Your task to perform on an android device: turn off location history Image 0: 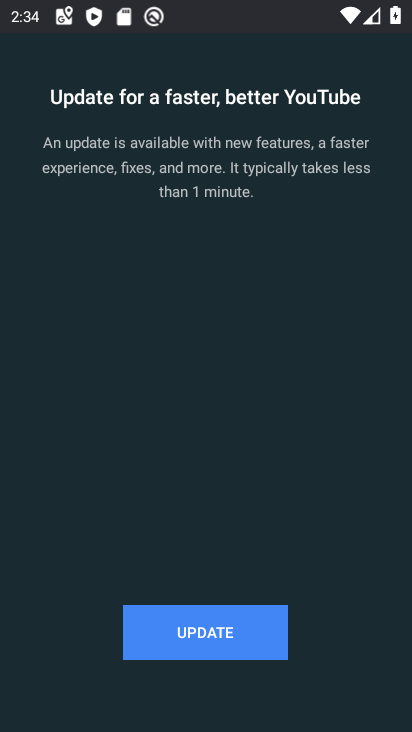
Step 0: press back button
Your task to perform on an android device: turn off location history Image 1: 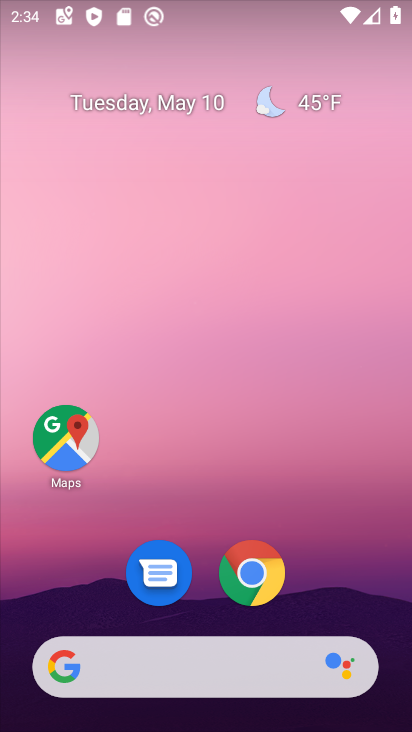
Step 1: drag from (197, 605) to (206, 349)
Your task to perform on an android device: turn off location history Image 2: 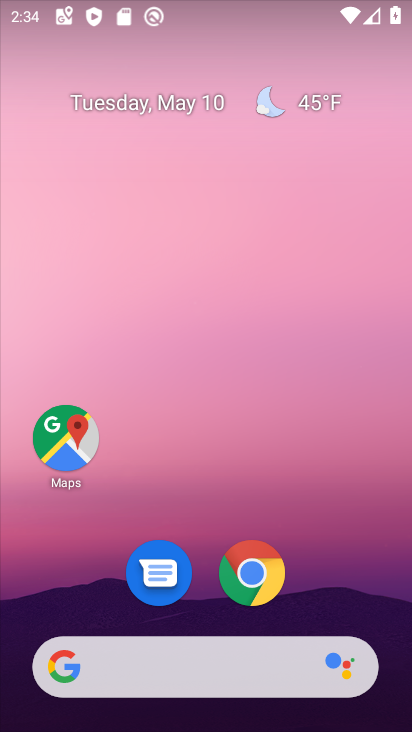
Step 2: drag from (198, 607) to (164, 138)
Your task to perform on an android device: turn off location history Image 3: 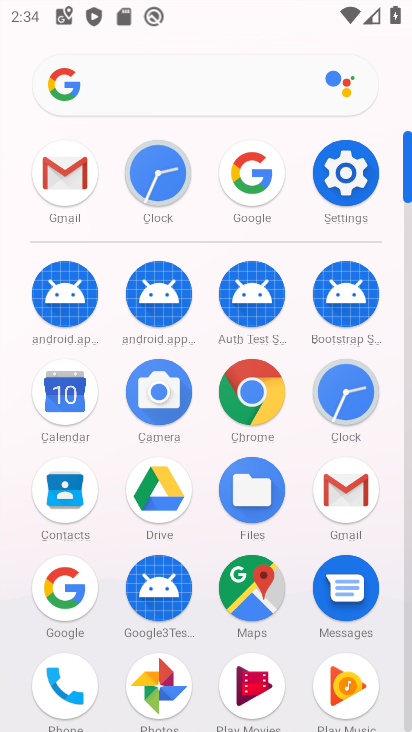
Step 3: click (344, 178)
Your task to perform on an android device: turn off location history Image 4: 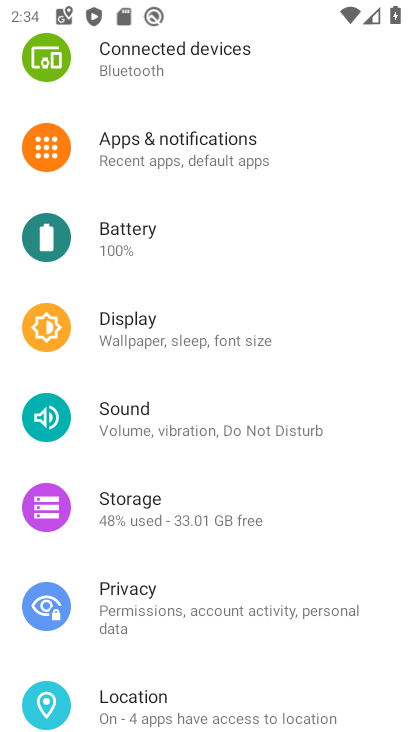
Step 4: click (206, 699)
Your task to perform on an android device: turn off location history Image 5: 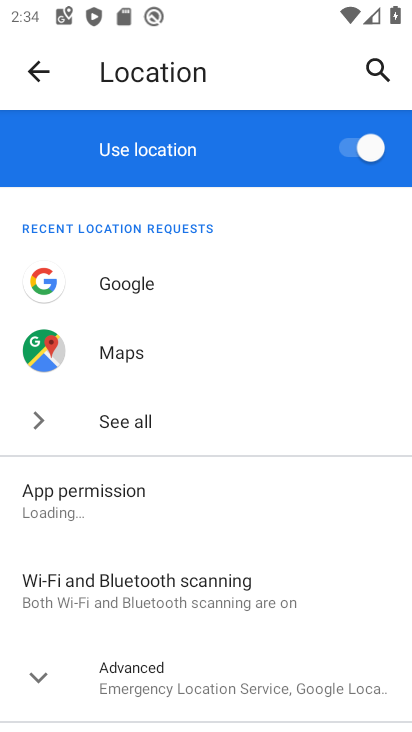
Step 5: click (161, 668)
Your task to perform on an android device: turn off location history Image 6: 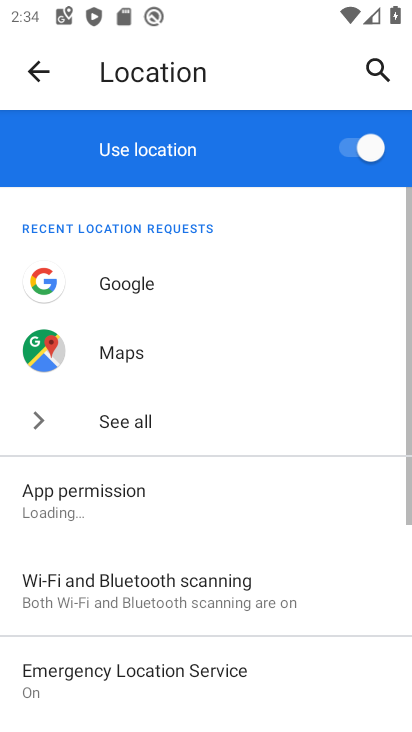
Step 6: drag from (176, 614) to (275, 308)
Your task to perform on an android device: turn off location history Image 7: 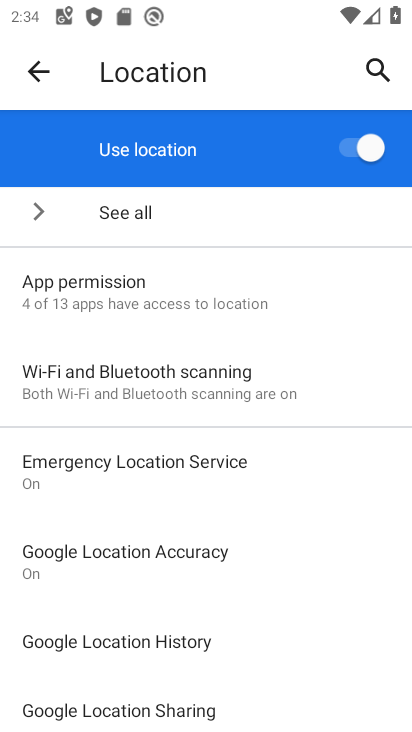
Step 7: drag from (191, 667) to (191, 482)
Your task to perform on an android device: turn off location history Image 8: 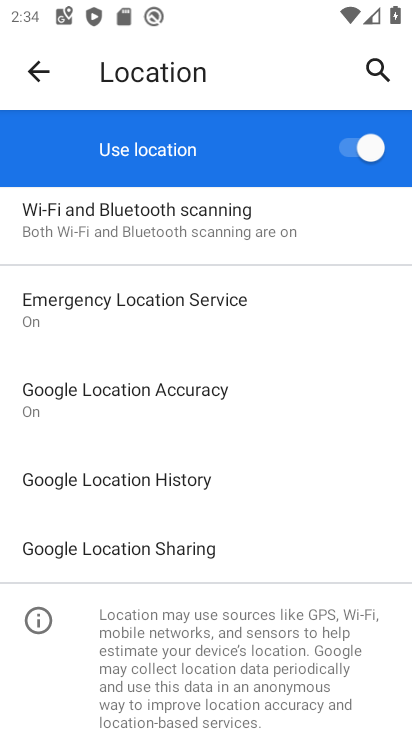
Step 8: click (168, 488)
Your task to perform on an android device: turn off location history Image 9: 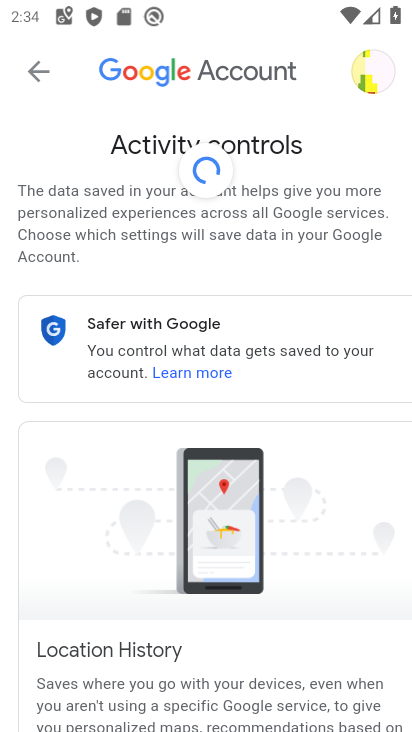
Step 9: drag from (205, 575) to (227, 327)
Your task to perform on an android device: turn off location history Image 10: 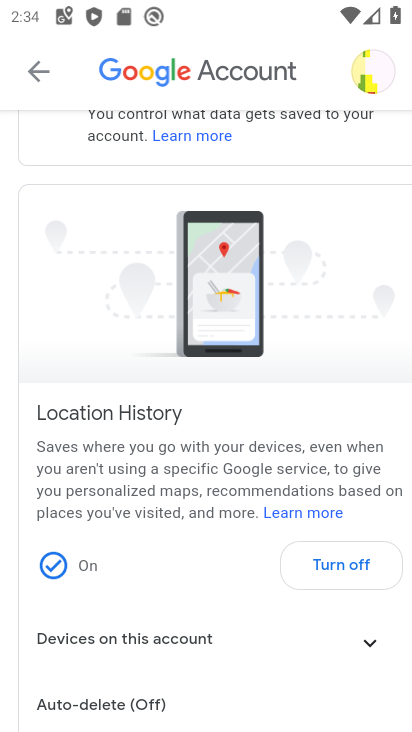
Step 10: click (315, 564)
Your task to perform on an android device: turn off location history Image 11: 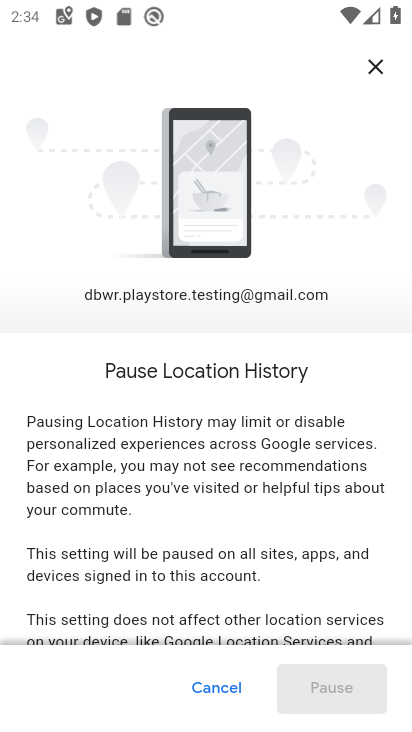
Step 11: drag from (283, 616) to (321, 197)
Your task to perform on an android device: turn off location history Image 12: 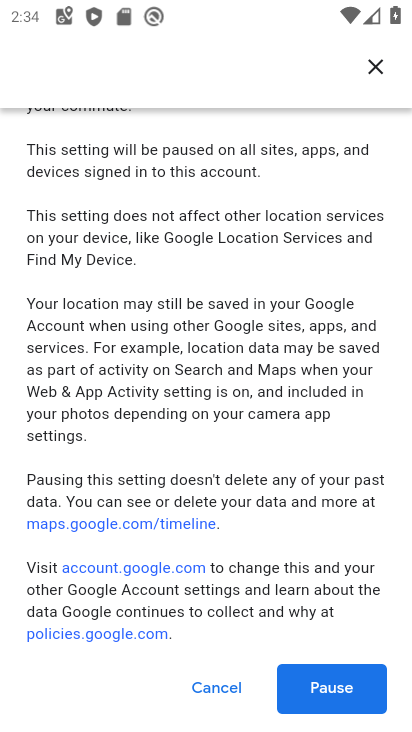
Step 12: drag from (358, 508) to (352, 306)
Your task to perform on an android device: turn off location history Image 13: 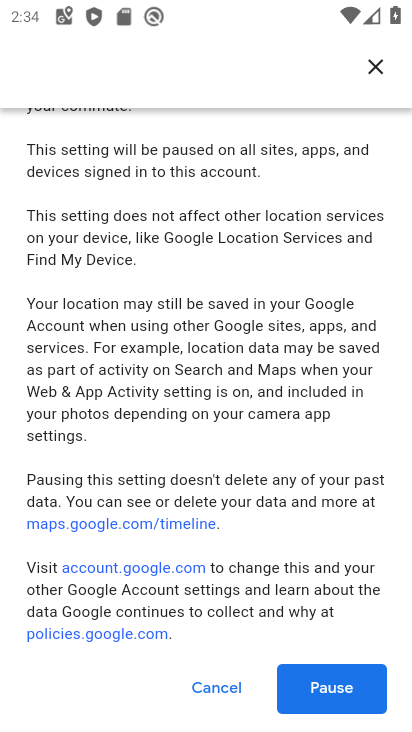
Step 13: click (338, 676)
Your task to perform on an android device: turn off location history Image 14: 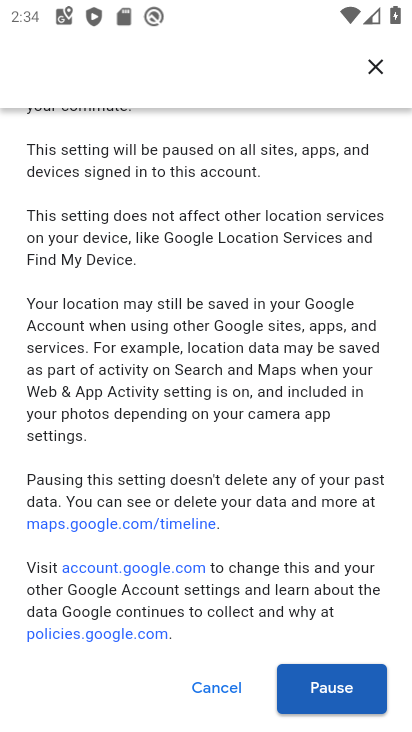
Step 14: click (332, 692)
Your task to perform on an android device: turn off location history Image 15: 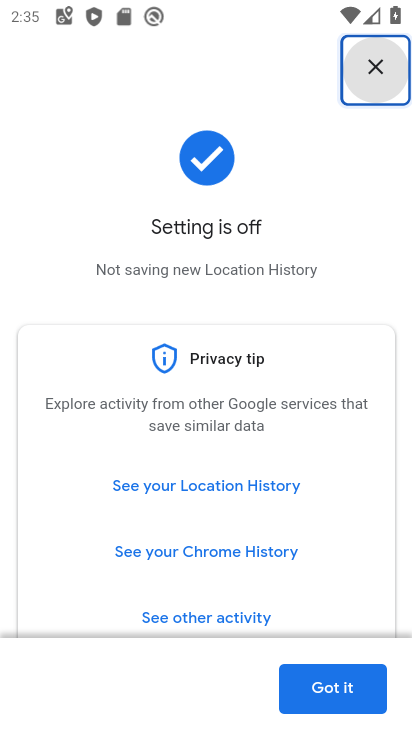
Step 15: task complete